Your task to perform on an android device: Go to calendar. Show me events next week Image 0: 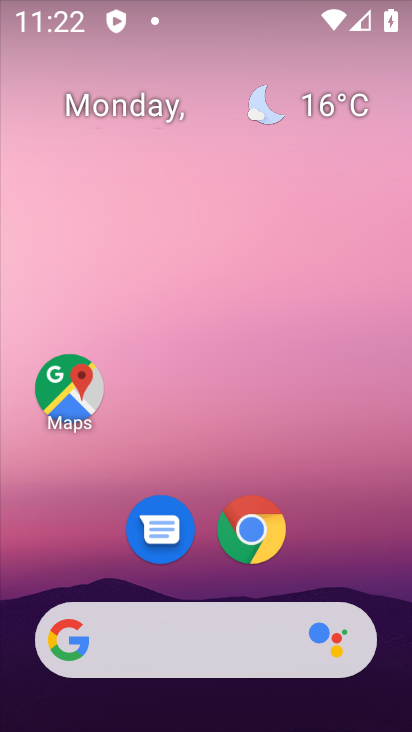
Step 0: drag from (188, 584) to (227, 114)
Your task to perform on an android device: Go to calendar. Show me events next week Image 1: 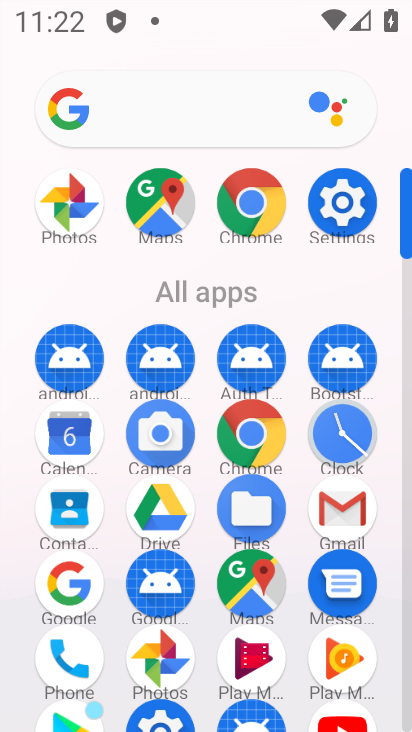
Step 1: click (62, 439)
Your task to perform on an android device: Go to calendar. Show me events next week Image 2: 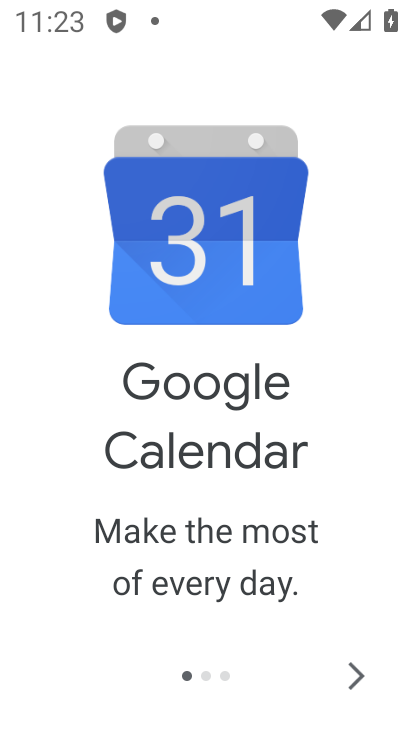
Step 2: click (347, 683)
Your task to perform on an android device: Go to calendar. Show me events next week Image 3: 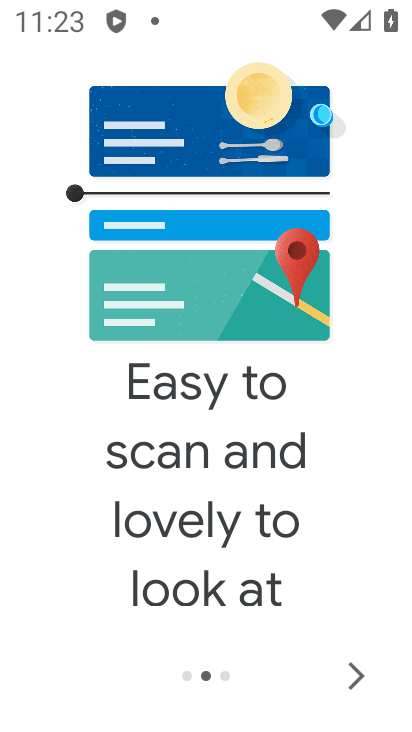
Step 3: click (347, 683)
Your task to perform on an android device: Go to calendar. Show me events next week Image 4: 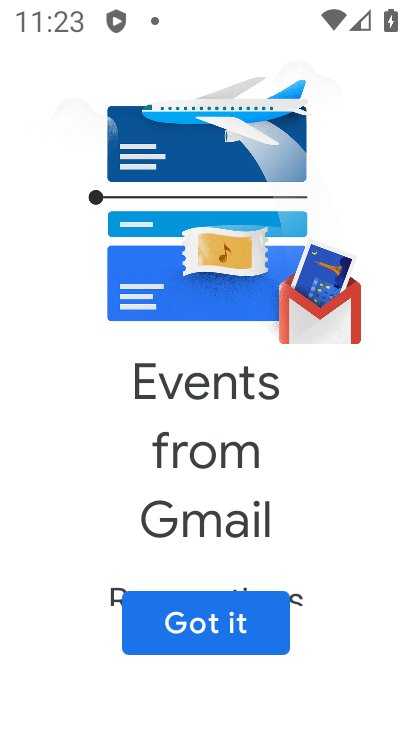
Step 4: click (256, 639)
Your task to perform on an android device: Go to calendar. Show me events next week Image 5: 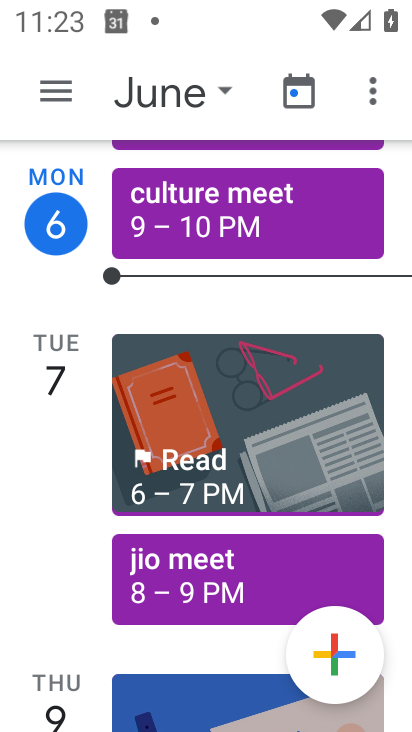
Step 5: click (190, 94)
Your task to perform on an android device: Go to calendar. Show me events next week Image 6: 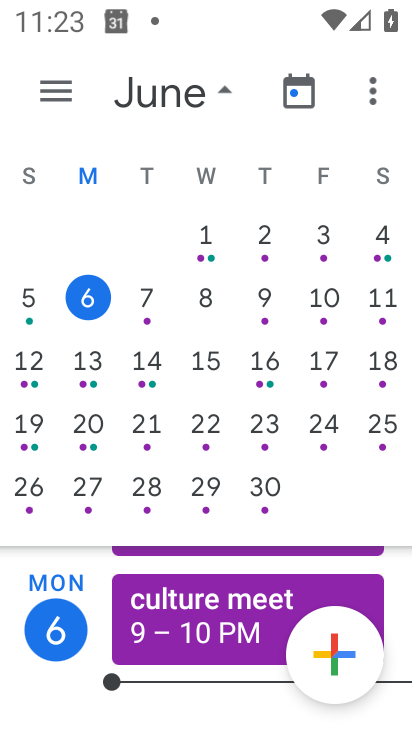
Step 6: click (17, 372)
Your task to perform on an android device: Go to calendar. Show me events next week Image 7: 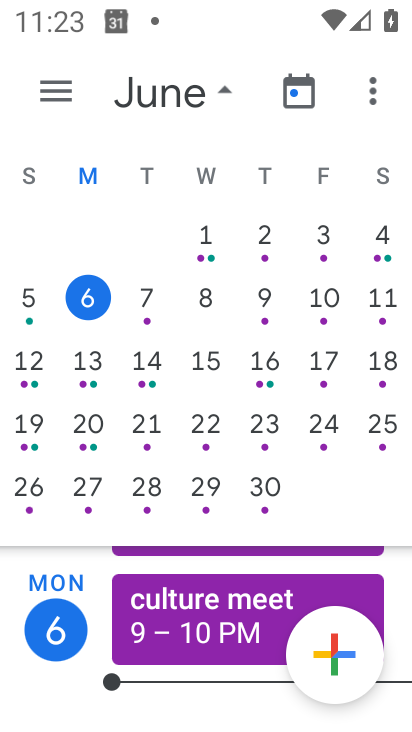
Step 7: click (70, 356)
Your task to perform on an android device: Go to calendar. Show me events next week Image 8: 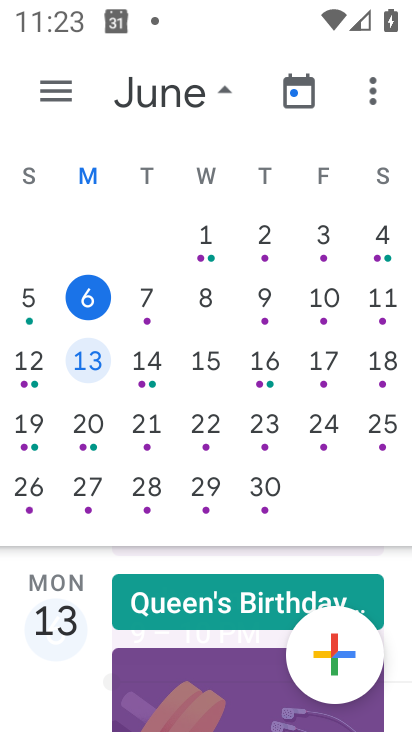
Step 8: click (133, 356)
Your task to perform on an android device: Go to calendar. Show me events next week Image 9: 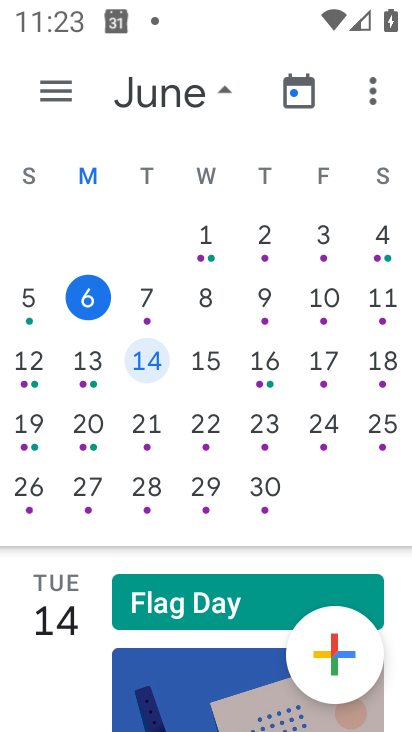
Step 9: click (192, 365)
Your task to perform on an android device: Go to calendar. Show me events next week Image 10: 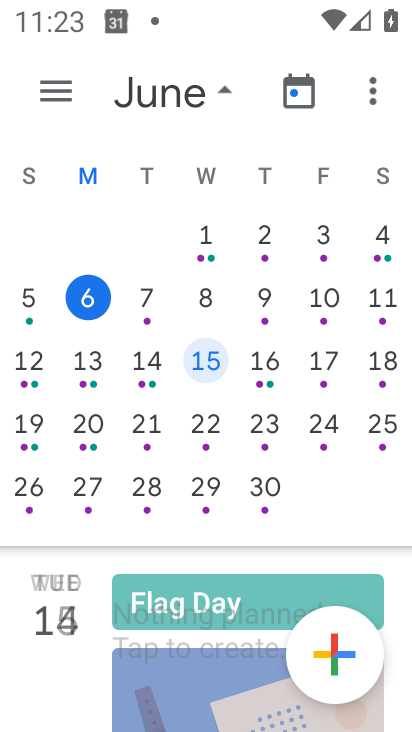
Step 10: click (266, 364)
Your task to perform on an android device: Go to calendar. Show me events next week Image 11: 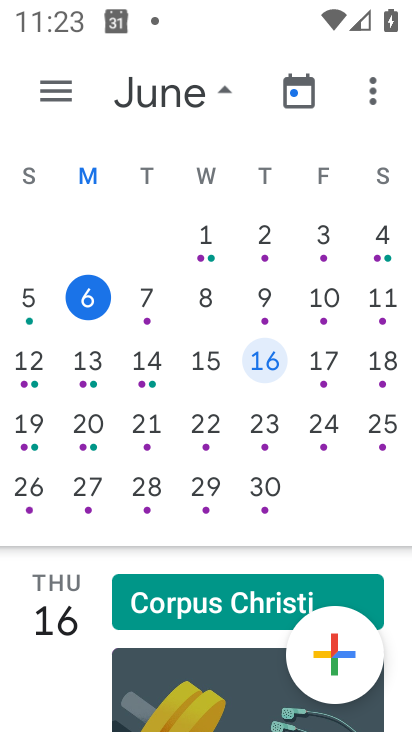
Step 11: click (328, 373)
Your task to perform on an android device: Go to calendar. Show me events next week Image 12: 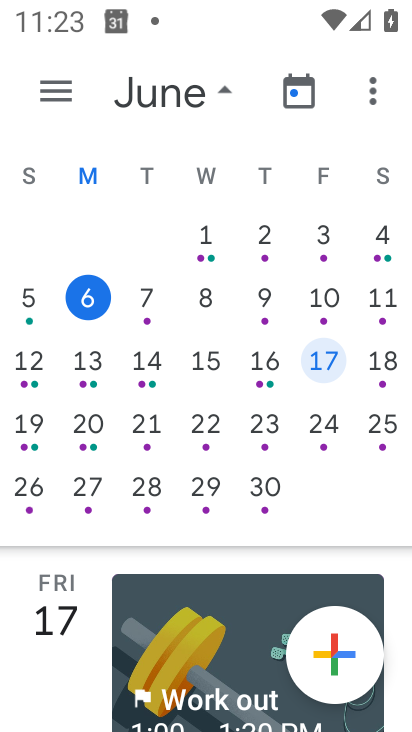
Step 12: click (403, 383)
Your task to perform on an android device: Go to calendar. Show me events next week Image 13: 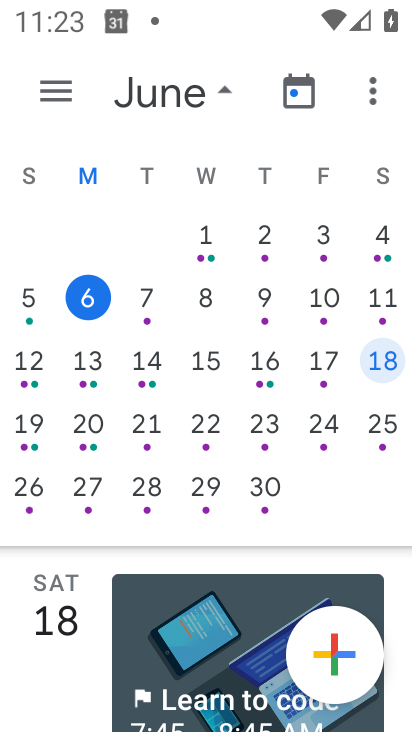
Step 13: task complete